Your task to perform on an android device: Search for hotels in Austin Image 0: 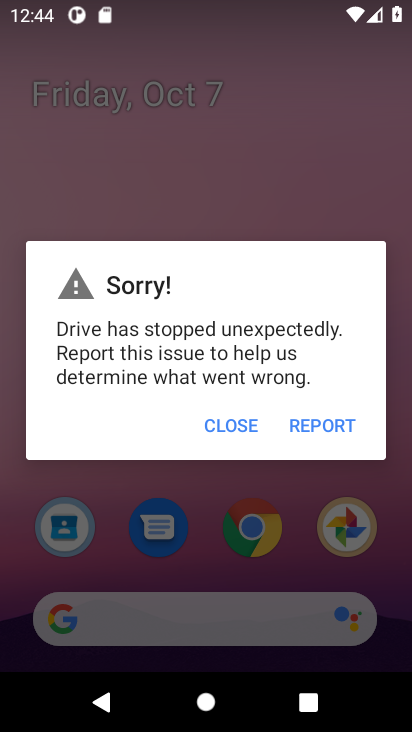
Step 0: click (230, 445)
Your task to perform on an android device: Search for hotels in Austin Image 1: 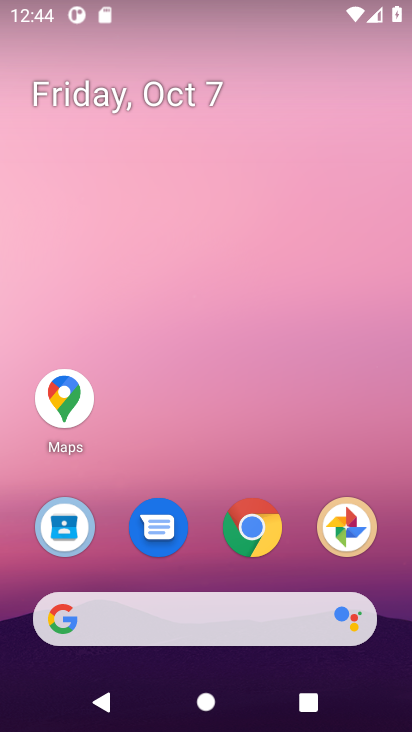
Step 1: click (236, 615)
Your task to perform on an android device: Search for hotels in Austin Image 2: 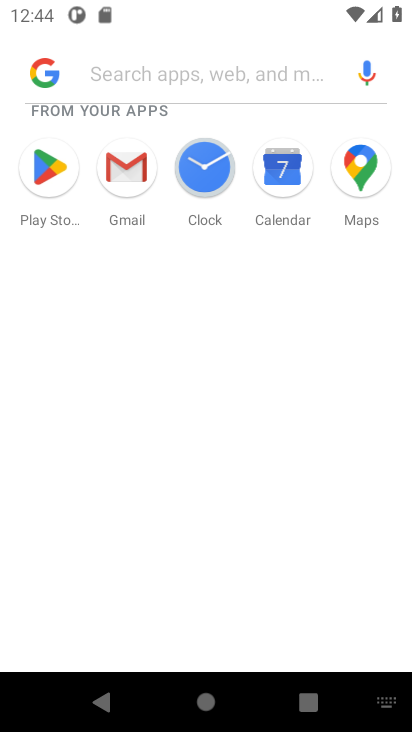
Step 2: type "Search for hotels Search for hotels in Austinin Austin"
Your task to perform on an android device: Search for hotels in Austin Image 3: 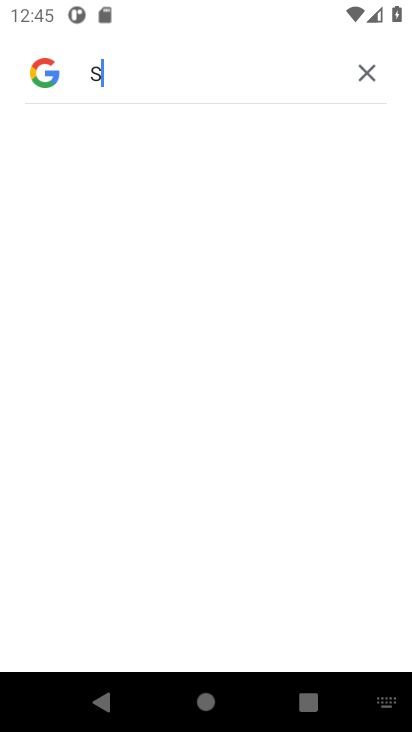
Step 3: click (392, 79)
Your task to perform on an android device: Search for hotels in Austin Image 4: 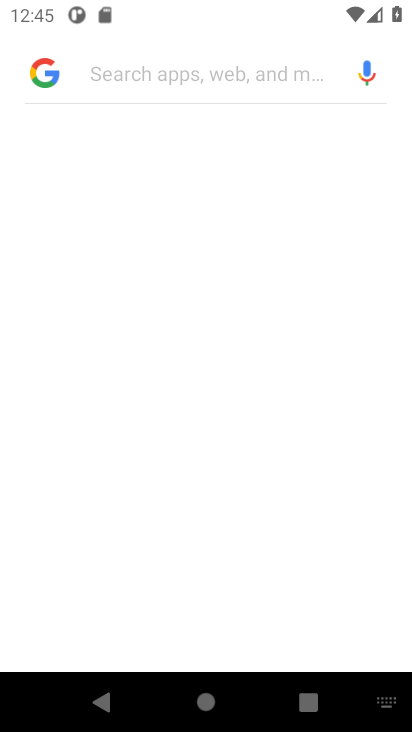
Step 4: click (372, 79)
Your task to perform on an android device: Search for hotels in Austin Image 5: 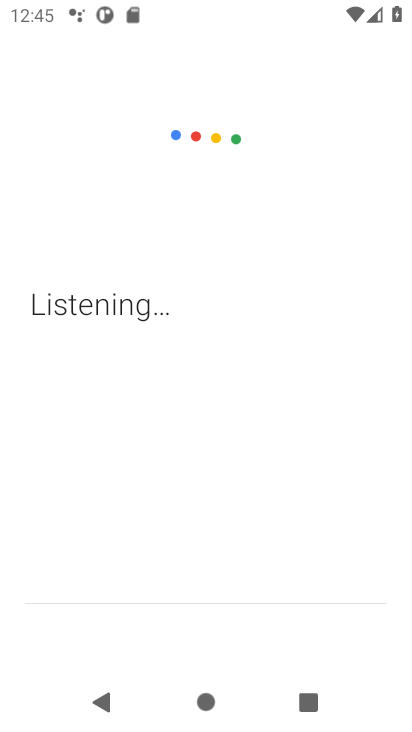
Step 5: type "Search for hotels in Austin"
Your task to perform on an android device: Search for hotels in Austin Image 6: 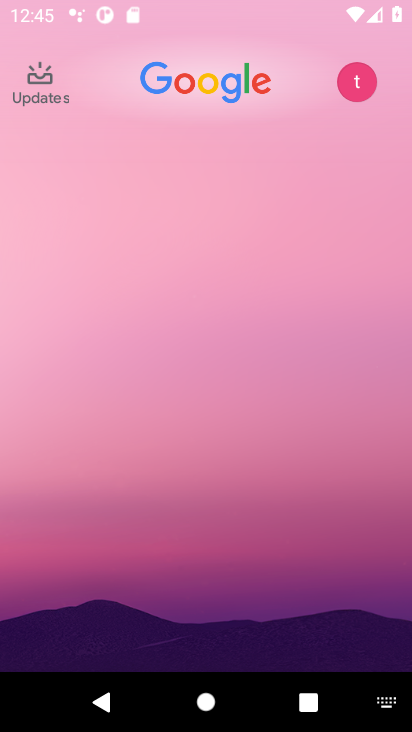
Step 6: click (248, 594)
Your task to perform on an android device: Search for hotels in Austin Image 7: 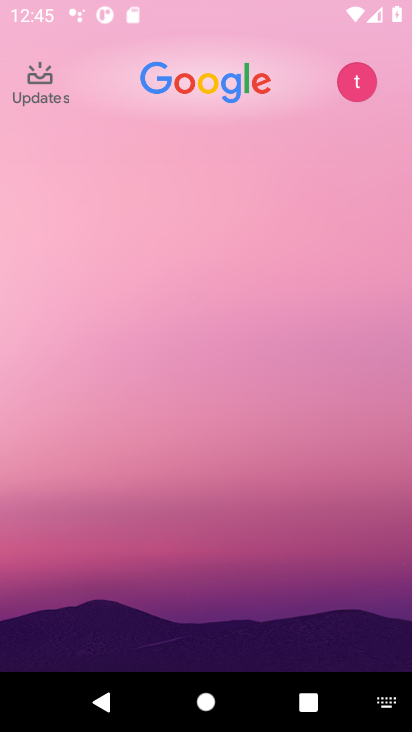
Step 7: press home button
Your task to perform on an android device: Search for hotels in Austin Image 8: 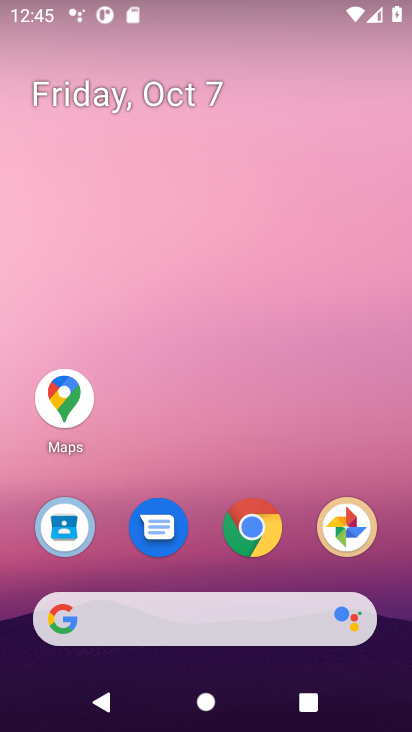
Step 8: press home button
Your task to perform on an android device: Search for hotels in Austin Image 9: 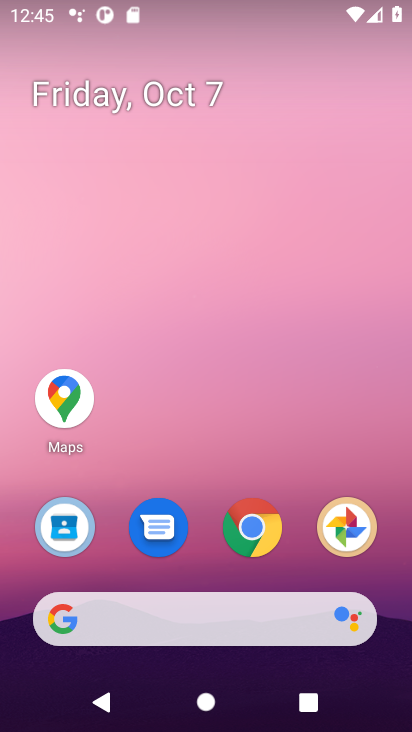
Step 9: click (254, 111)
Your task to perform on an android device: Search for hotels in Austin Image 10: 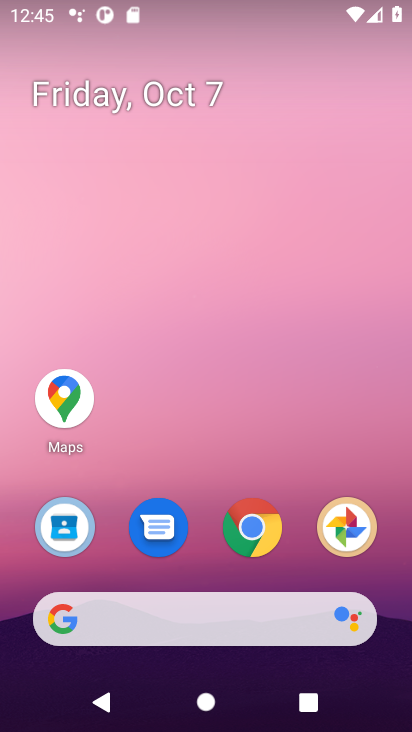
Step 10: click (262, 596)
Your task to perform on an android device: Search for hotels in Austin Image 11: 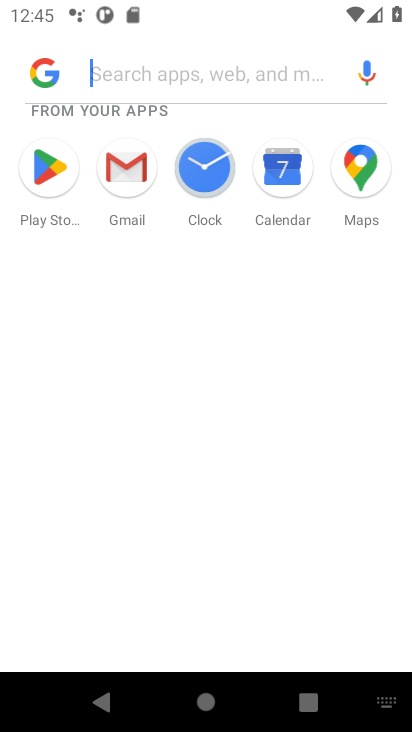
Step 11: type "Search for hotels in Austin"
Your task to perform on an android device: Search for hotels in Austin Image 12: 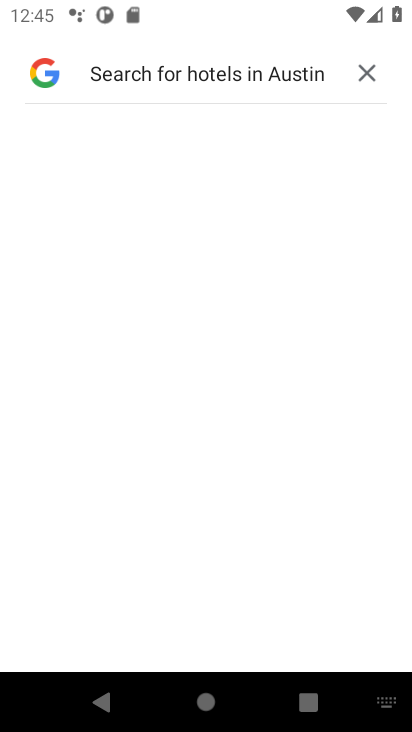
Step 12: click (231, 68)
Your task to perform on an android device: Search for hotels in Austin Image 13: 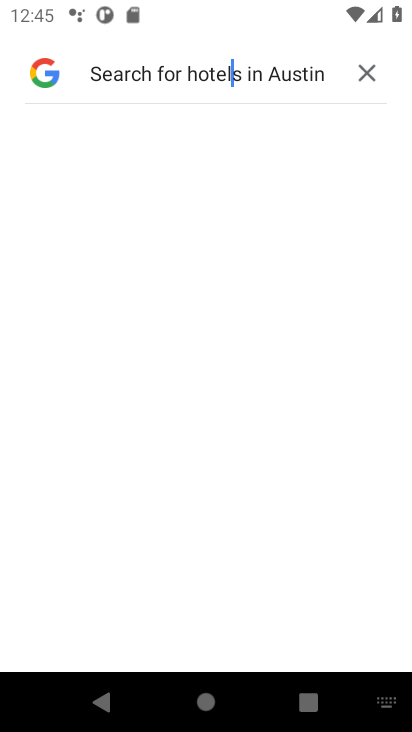
Step 13: task complete